Your task to perform on an android device: manage bookmarks in the chrome app Image 0: 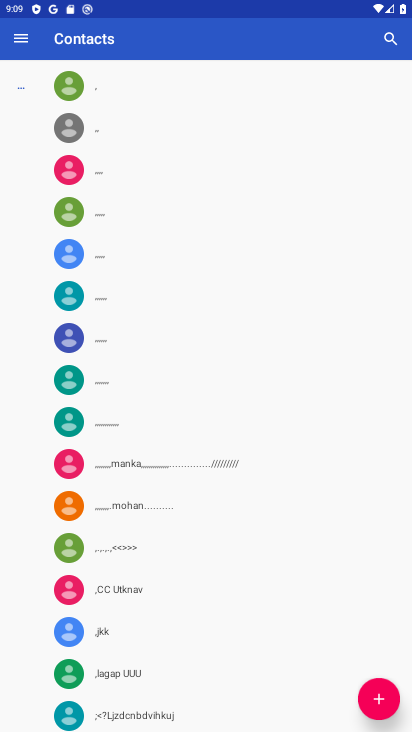
Step 0: press home button
Your task to perform on an android device: manage bookmarks in the chrome app Image 1: 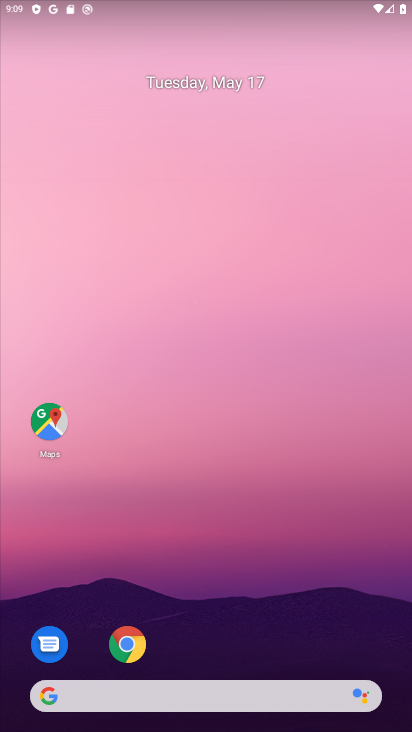
Step 1: click (137, 648)
Your task to perform on an android device: manage bookmarks in the chrome app Image 2: 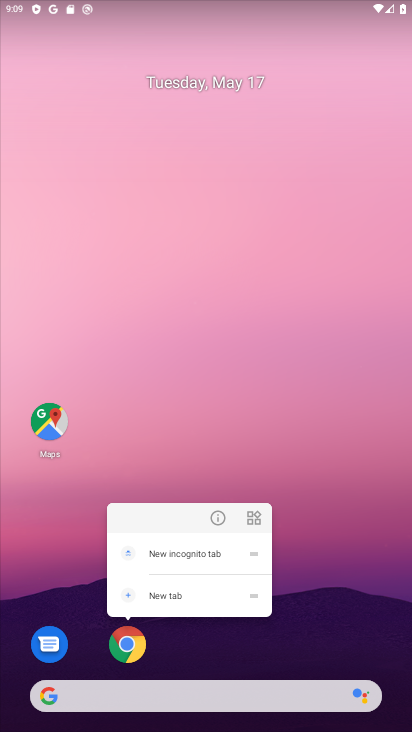
Step 2: click (182, 593)
Your task to perform on an android device: manage bookmarks in the chrome app Image 3: 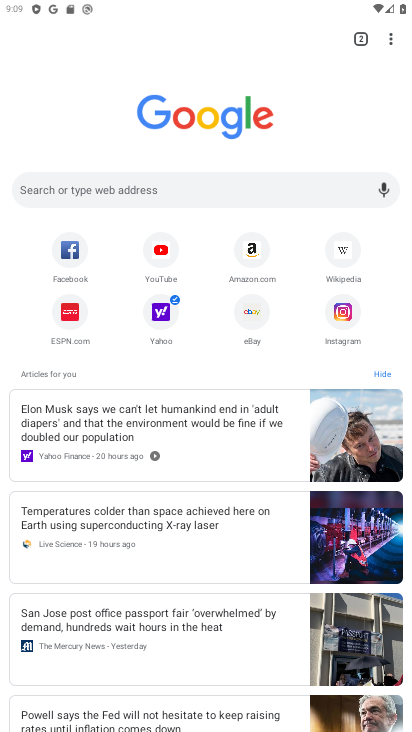
Step 3: click (395, 43)
Your task to perform on an android device: manage bookmarks in the chrome app Image 4: 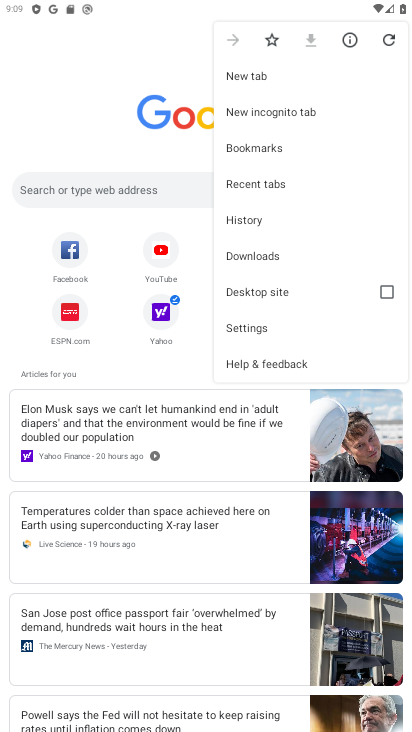
Step 4: click (238, 339)
Your task to perform on an android device: manage bookmarks in the chrome app Image 5: 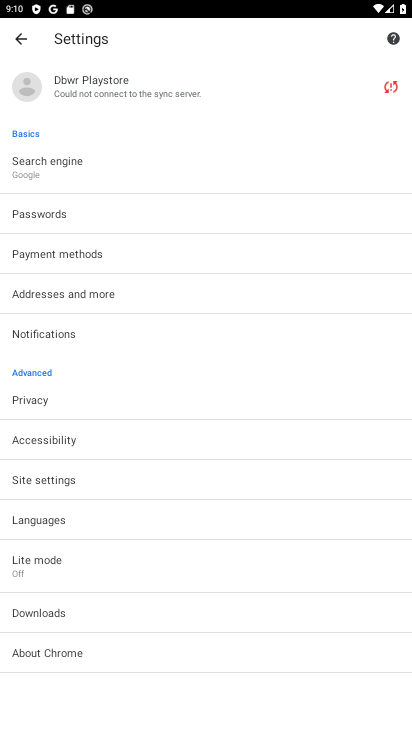
Step 5: click (19, 32)
Your task to perform on an android device: manage bookmarks in the chrome app Image 6: 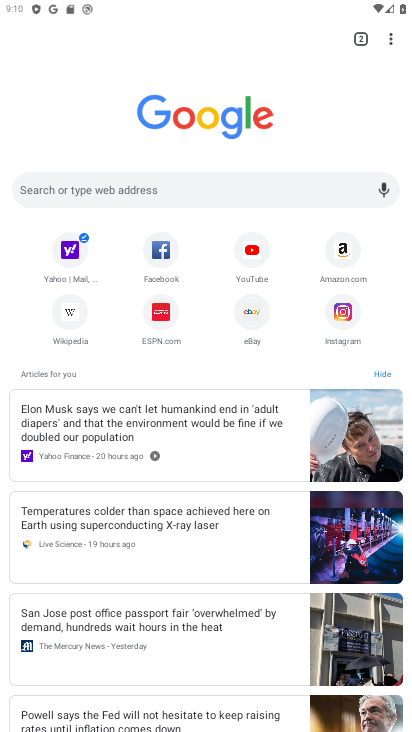
Step 6: click (401, 37)
Your task to perform on an android device: manage bookmarks in the chrome app Image 7: 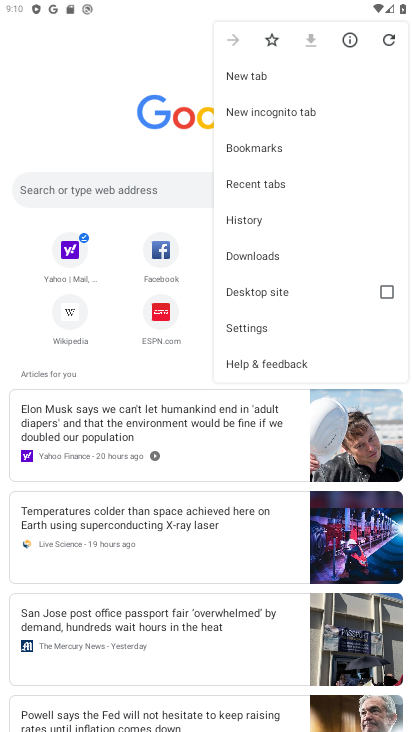
Step 7: click (268, 144)
Your task to perform on an android device: manage bookmarks in the chrome app Image 8: 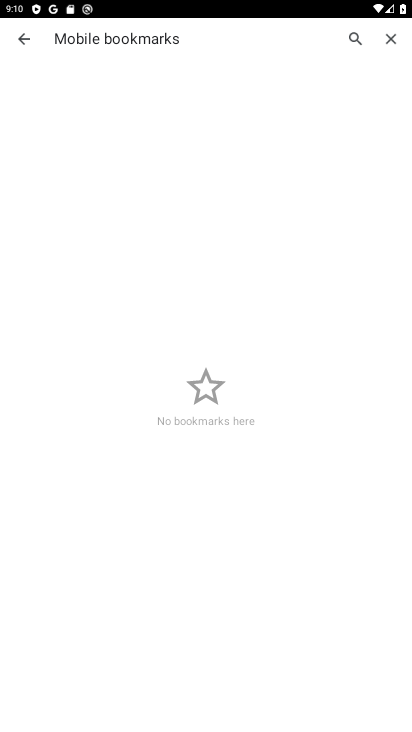
Step 8: task complete